Your task to perform on an android device: see sites visited before in the chrome app Image 0: 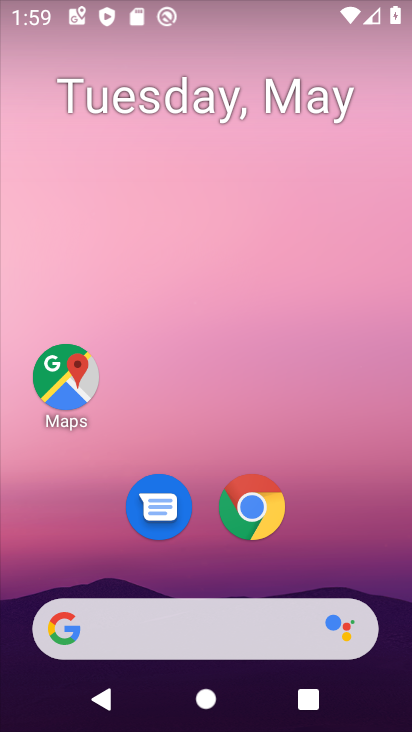
Step 0: click (246, 508)
Your task to perform on an android device: see sites visited before in the chrome app Image 1: 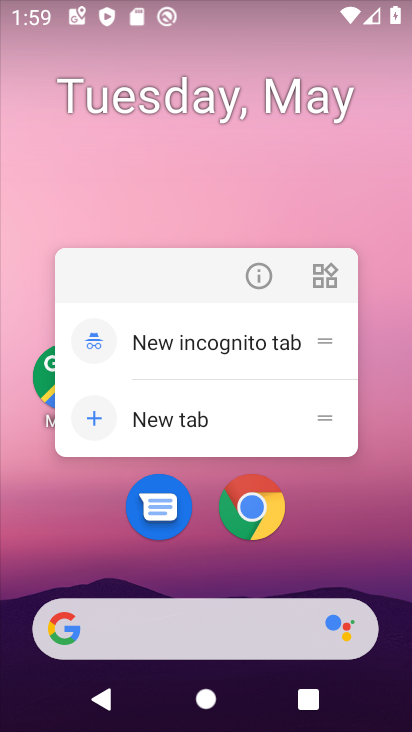
Step 1: click (257, 502)
Your task to perform on an android device: see sites visited before in the chrome app Image 2: 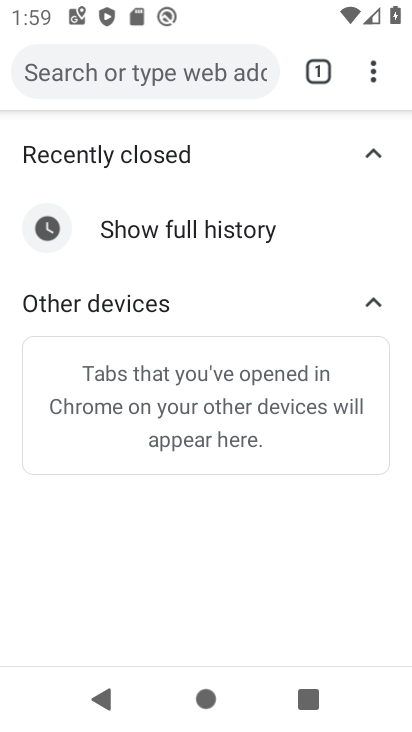
Step 2: click (373, 64)
Your task to perform on an android device: see sites visited before in the chrome app Image 3: 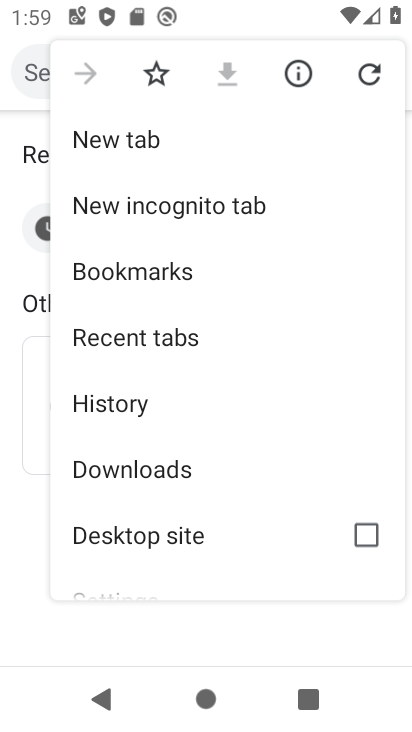
Step 3: drag from (169, 459) to (172, 366)
Your task to perform on an android device: see sites visited before in the chrome app Image 4: 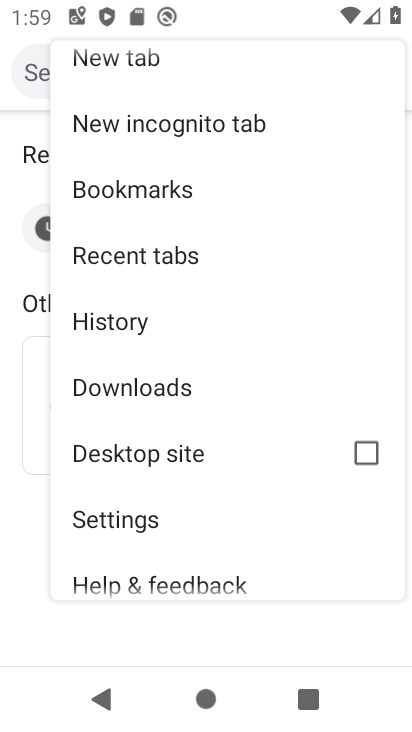
Step 4: click (141, 327)
Your task to perform on an android device: see sites visited before in the chrome app Image 5: 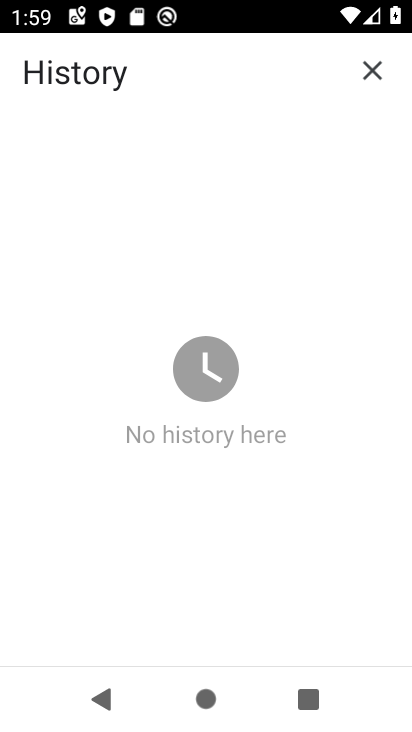
Step 5: task complete